Your task to perform on an android device: Do I have any events today? Image 0: 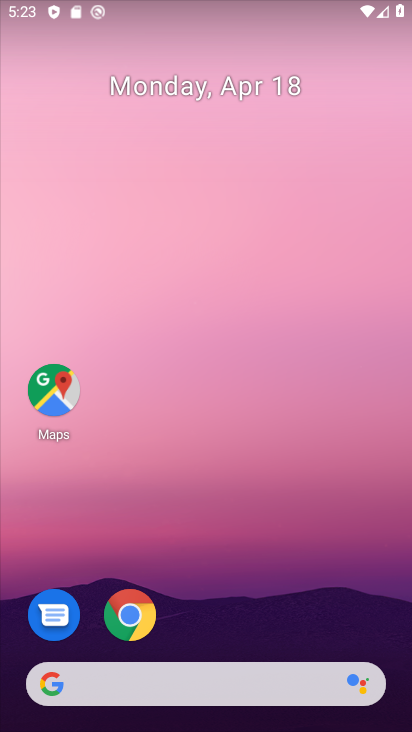
Step 0: drag from (313, 576) to (232, 105)
Your task to perform on an android device: Do I have any events today? Image 1: 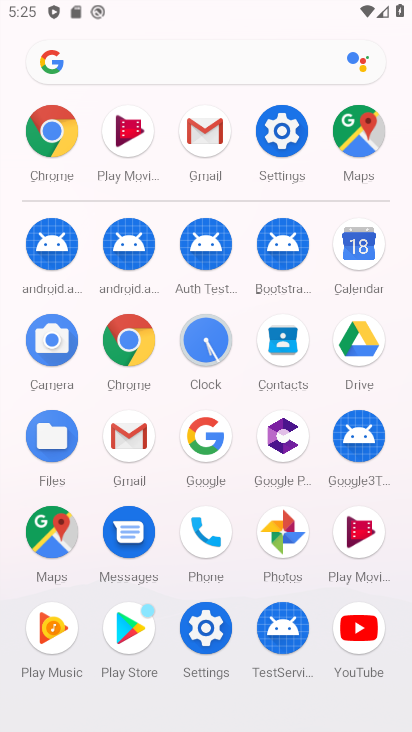
Step 1: click (361, 254)
Your task to perform on an android device: Do I have any events today? Image 2: 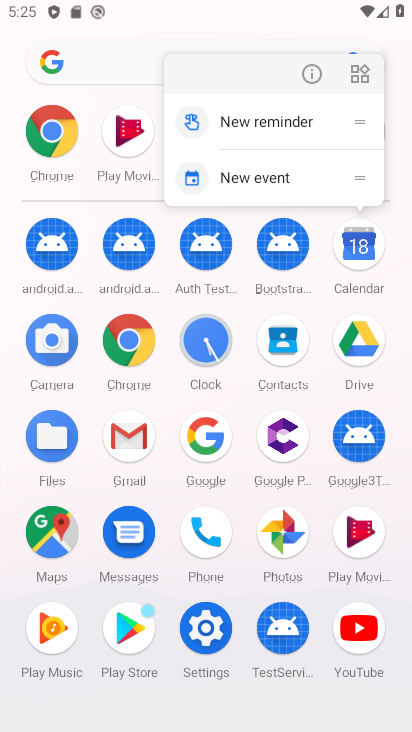
Step 2: click (361, 259)
Your task to perform on an android device: Do I have any events today? Image 3: 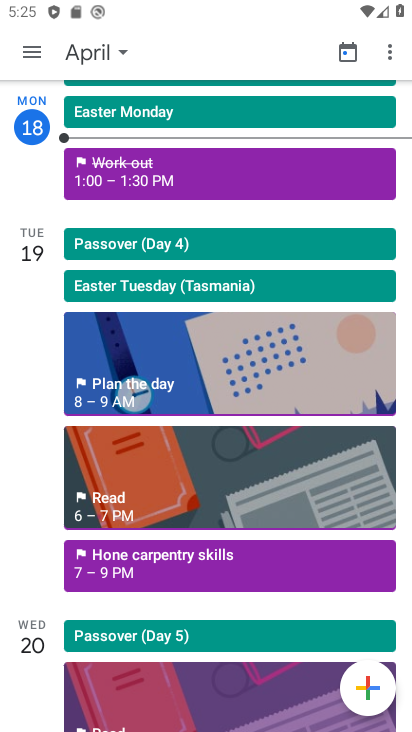
Step 3: click (361, 245)
Your task to perform on an android device: Do I have any events today? Image 4: 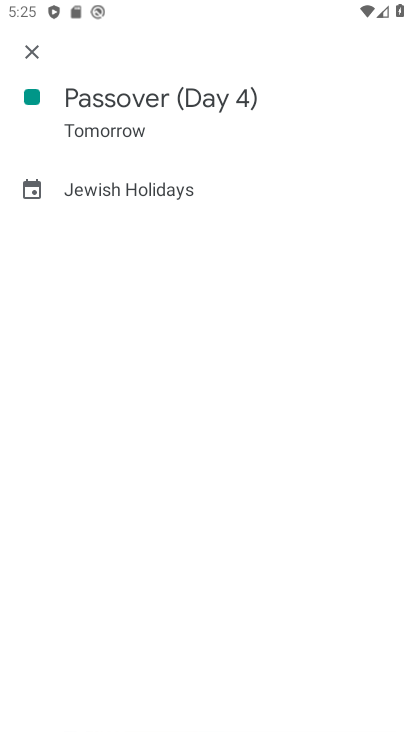
Step 4: click (31, 53)
Your task to perform on an android device: Do I have any events today? Image 5: 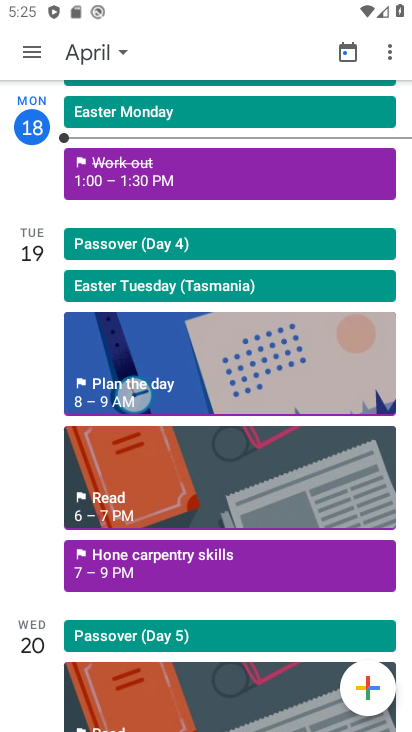
Step 5: click (24, 57)
Your task to perform on an android device: Do I have any events today? Image 6: 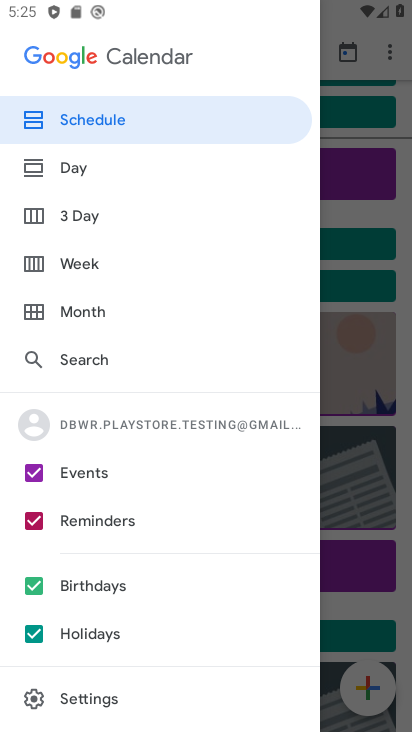
Step 6: click (361, 318)
Your task to perform on an android device: Do I have any events today? Image 7: 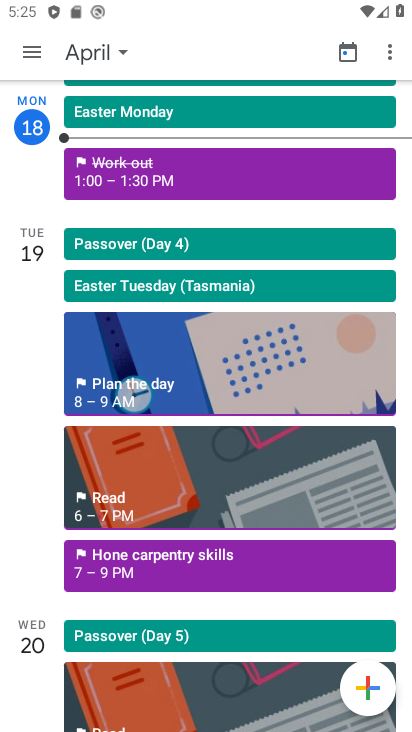
Step 7: click (98, 49)
Your task to perform on an android device: Do I have any events today? Image 8: 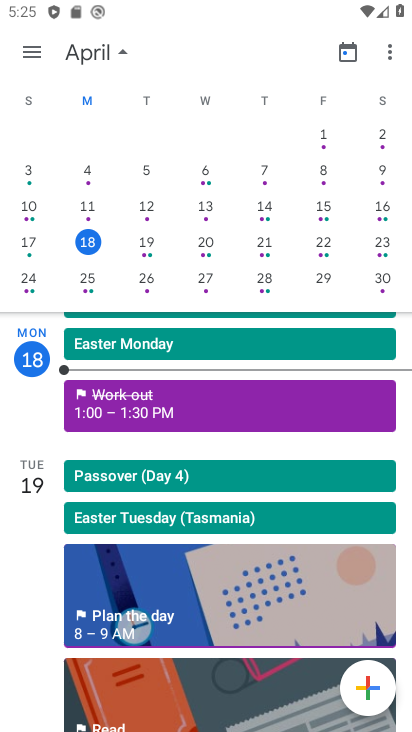
Step 8: click (90, 247)
Your task to perform on an android device: Do I have any events today? Image 9: 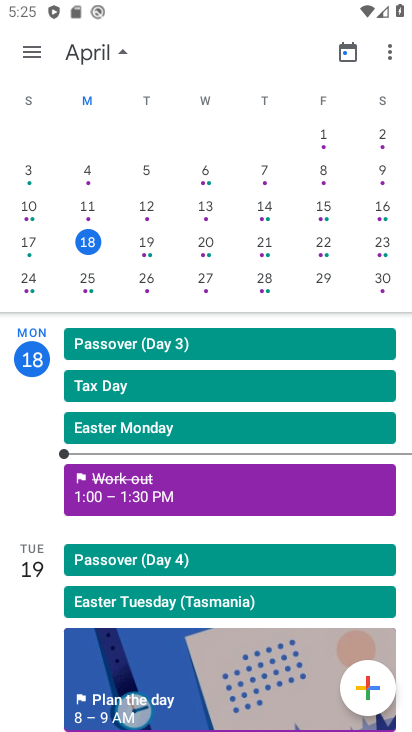
Step 9: task complete